Your task to perform on an android device: Do I have any events tomorrow? Image 0: 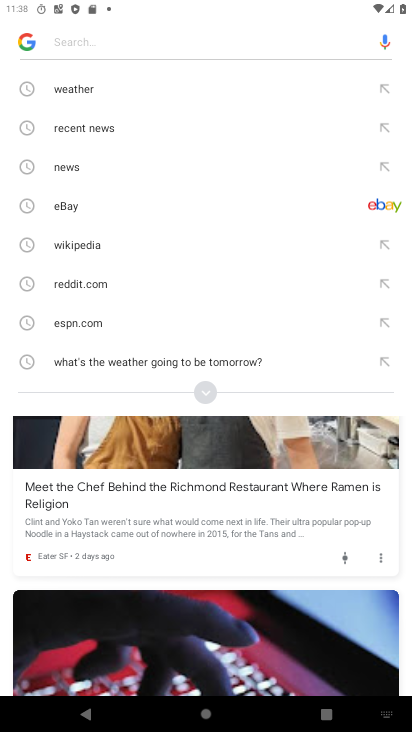
Step 0: press home button
Your task to perform on an android device: Do I have any events tomorrow? Image 1: 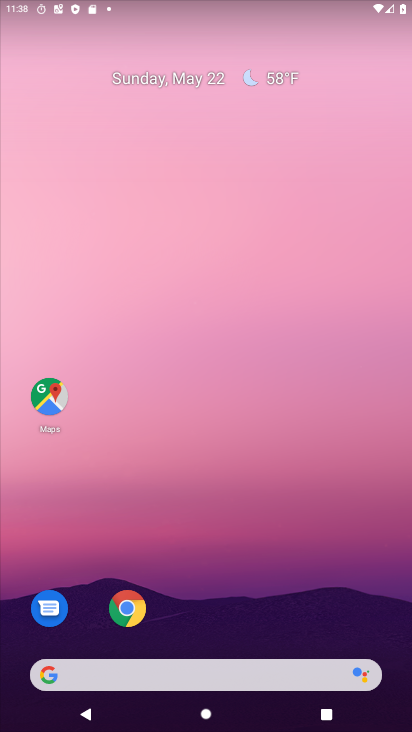
Step 1: drag from (286, 633) to (331, 6)
Your task to perform on an android device: Do I have any events tomorrow? Image 2: 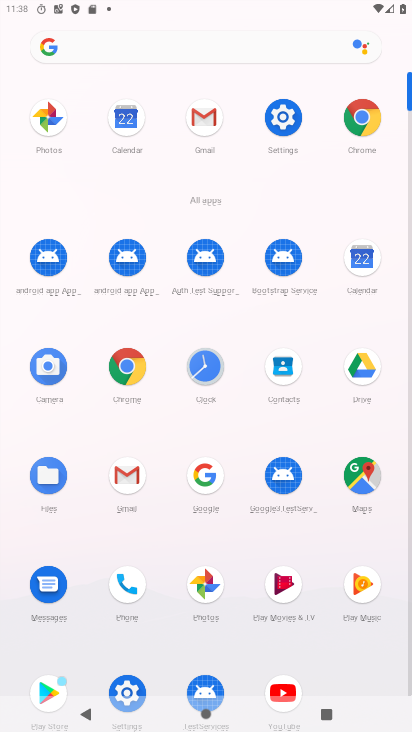
Step 2: click (360, 272)
Your task to perform on an android device: Do I have any events tomorrow? Image 3: 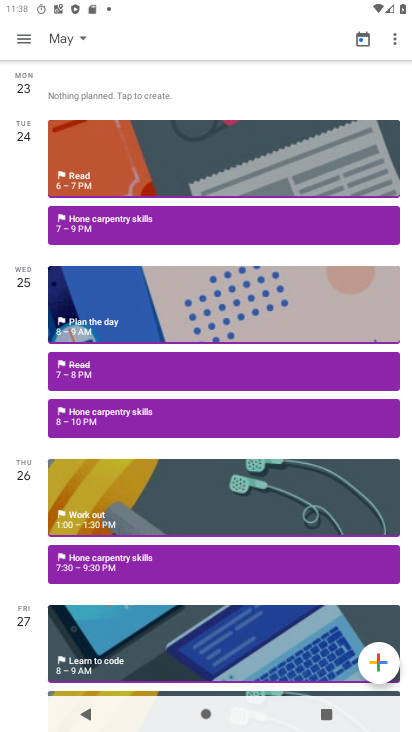
Step 3: click (24, 39)
Your task to perform on an android device: Do I have any events tomorrow? Image 4: 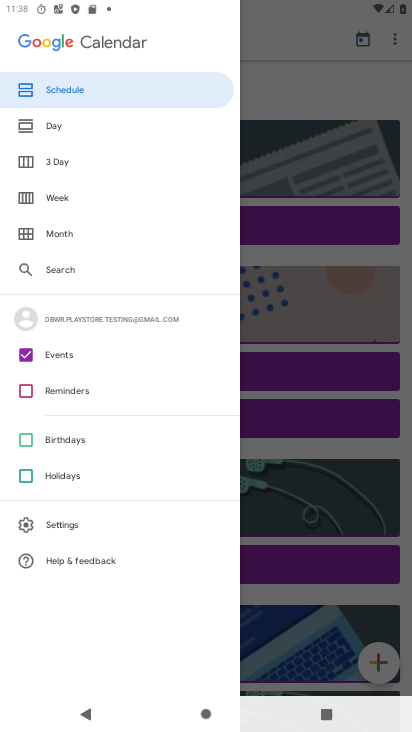
Step 4: click (132, 128)
Your task to perform on an android device: Do I have any events tomorrow? Image 5: 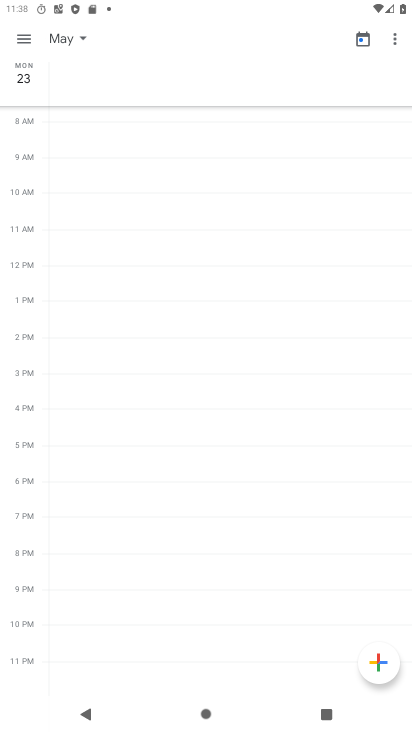
Step 5: click (81, 47)
Your task to perform on an android device: Do I have any events tomorrow? Image 6: 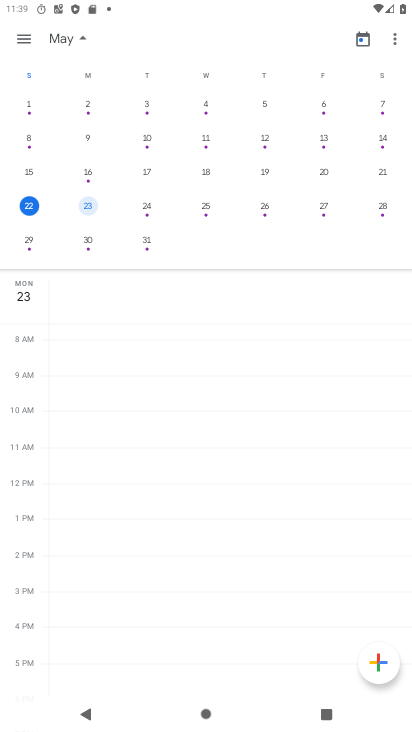
Step 6: click (146, 215)
Your task to perform on an android device: Do I have any events tomorrow? Image 7: 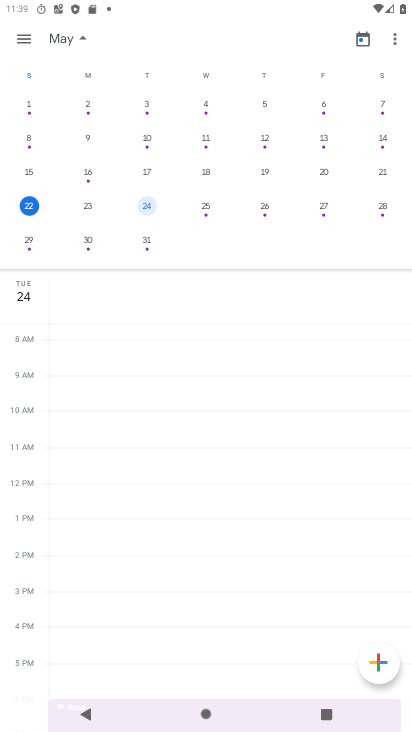
Step 7: click (78, 49)
Your task to perform on an android device: Do I have any events tomorrow? Image 8: 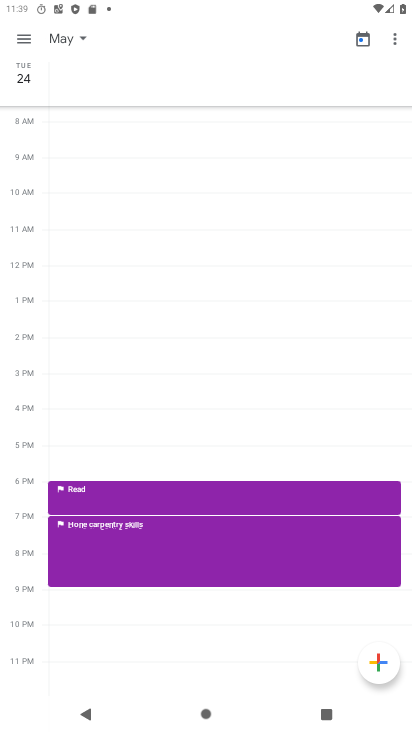
Step 8: task complete